Your task to perform on an android device: Open eBay Image 0: 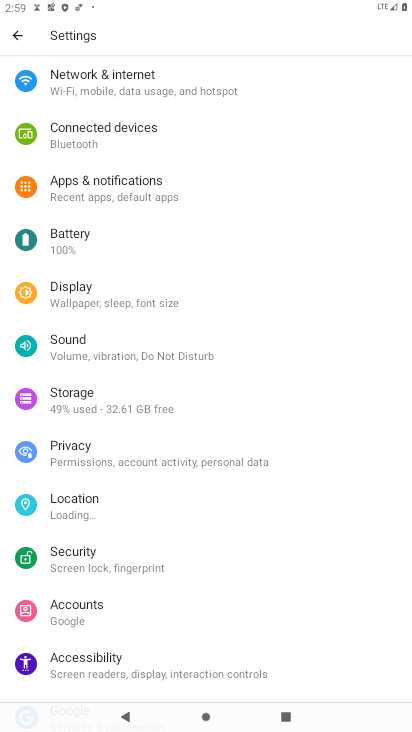
Step 0: press home button
Your task to perform on an android device: Open eBay Image 1: 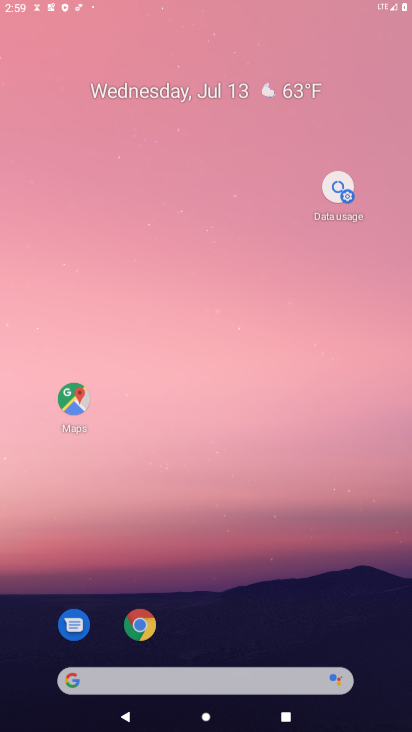
Step 1: drag from (233, 449) to (245, 73)
Your task to perform on an android device: Open eBay Image 2: 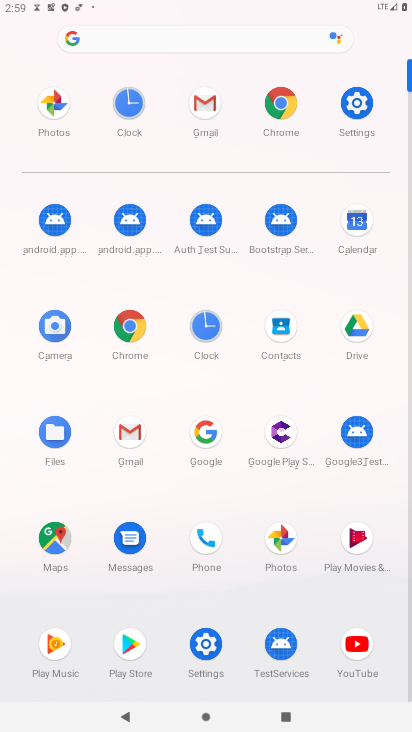
Step 2: click (181, 38)
Your task to perform on an android device: Open eBay Image 3: 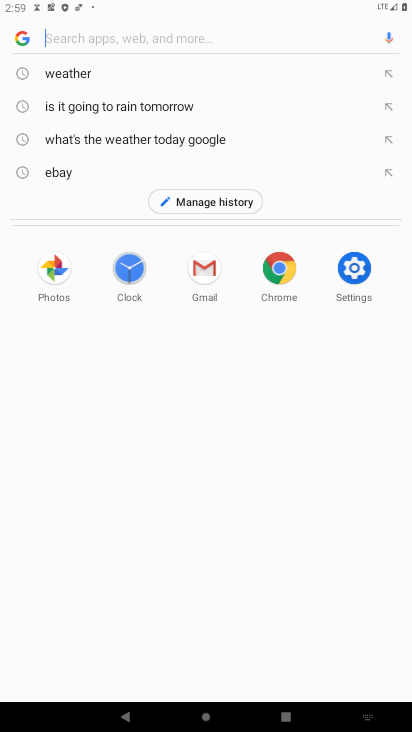
Step 3: click (52, 170)
Your task to perform on an android device: Open eBay Image 4: 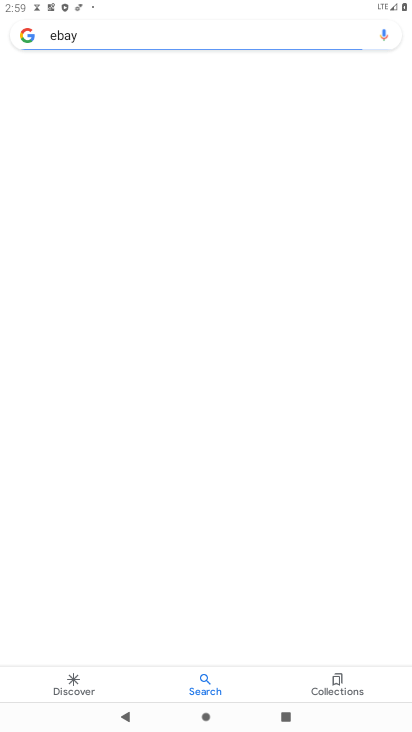
Step 4: drag from (222, 428) to (208, 188)
Your task to perform on an android device: Open eBay Image 5: 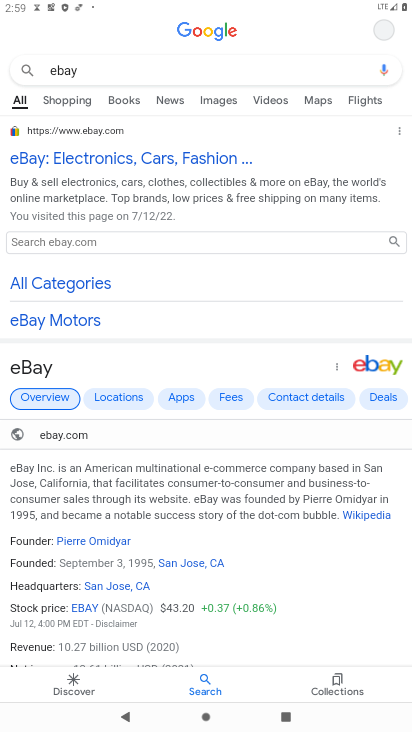
Step 5: drag from (179, 449) to (184, 192)
Your task to perform on an android device: Open eBay Image 6: 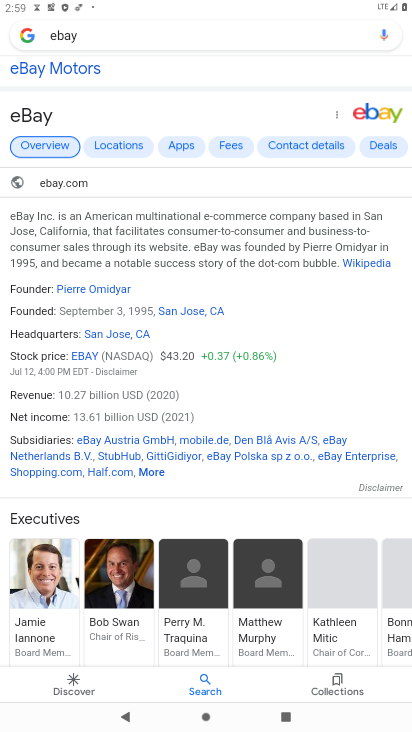
Step 6: drag from (127, 122) to (288, 565)
Your task to perform on an android device: Open eBay Image 7: 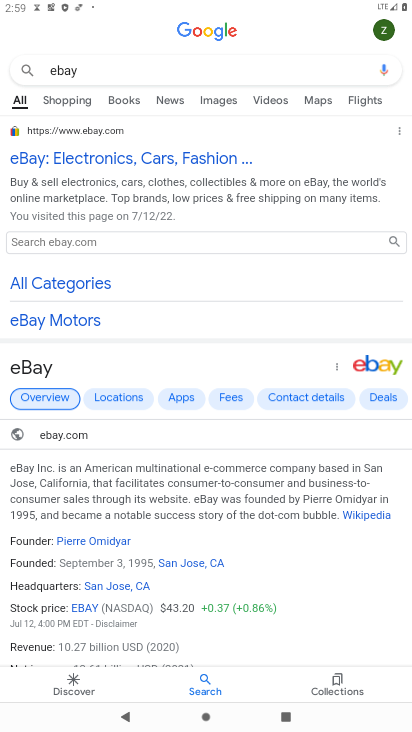
Step 7: click (66, 156)
Your task to perform on an android device: Open eBay Image 8: 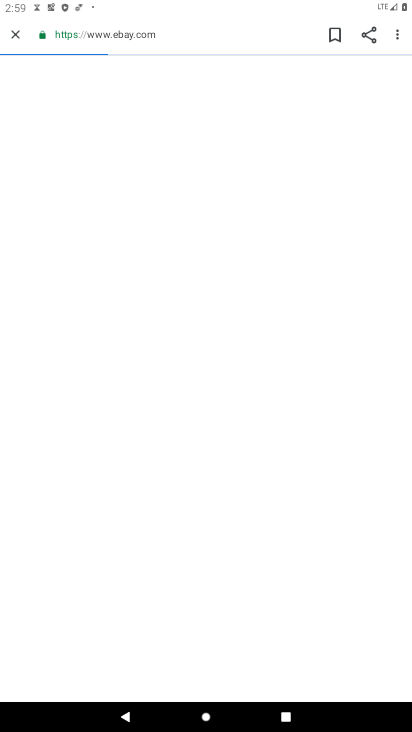
Step 8: task complete